Your task to perform on an android device: see sites visited before in the chrome app Image 0: 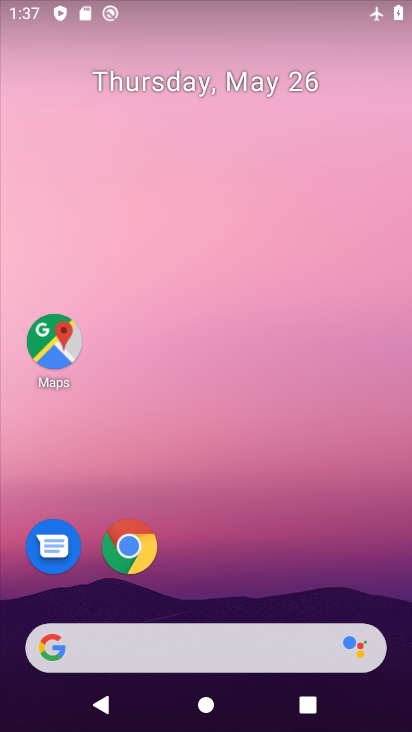
Step 0: drag from (198, 577) to (204, 170)
Your task to perform on an android device: see sites visited before in the chrome app Image 1: 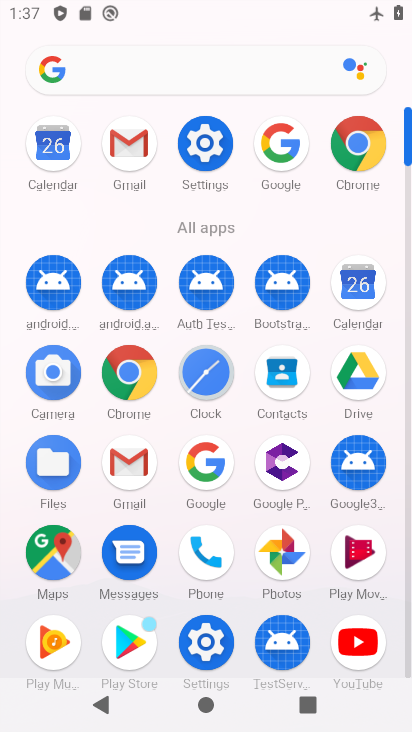
Step 1: click (356, 185)
Your task to perform on an android device: see sites visited before in the chrome app Image 2: 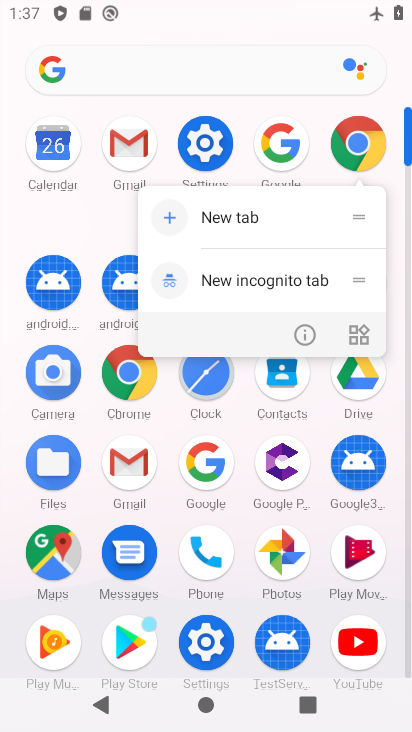
Step 2: click (367, 141)
Your task to perform on an android device: see sites visited before in the chrome app Image 3: 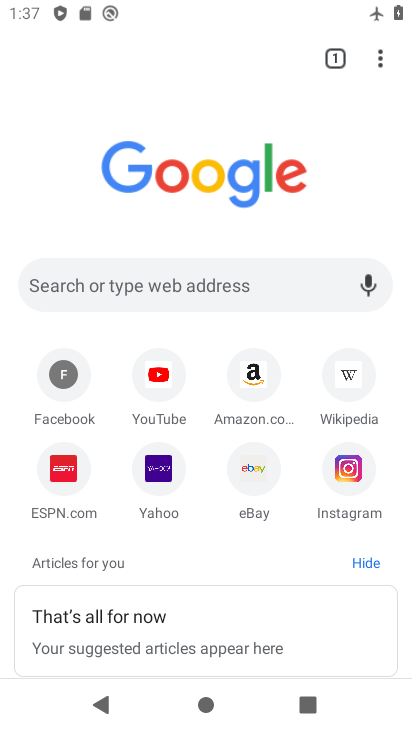
Step 3: click (373, 59)
Your task to perform on an android device: see sites visited before in the chrome app Image 4: 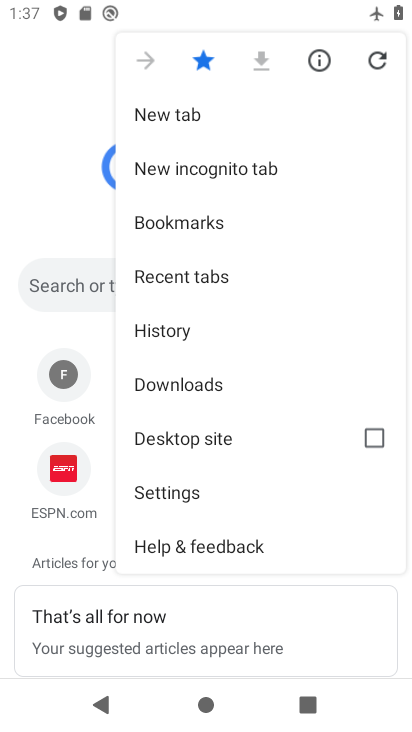
Step 4: click (204, 331)
Your task to perform on an android device: see sites visited before in the chrome app Image 5: 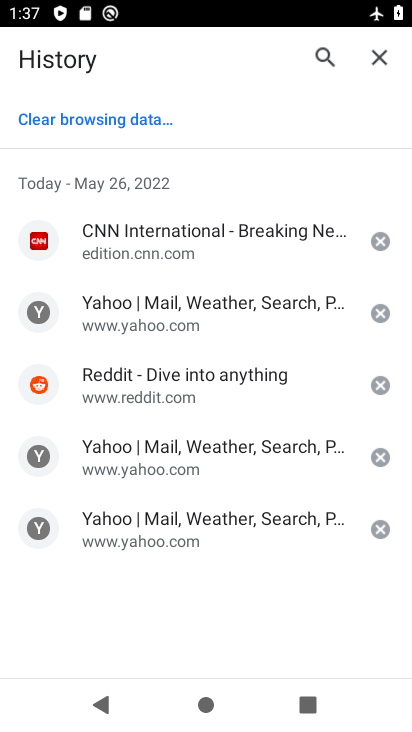
Step 5: task complete